Your task to perform on an android device: find snoozed emails in the gmail app Image 0: 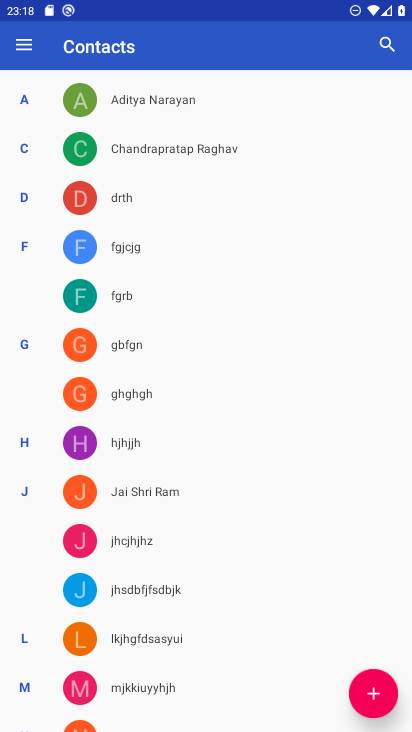
Step 0: press home button
Your task to perform on an android device: find snoozed emails in the gmail app Image 1: 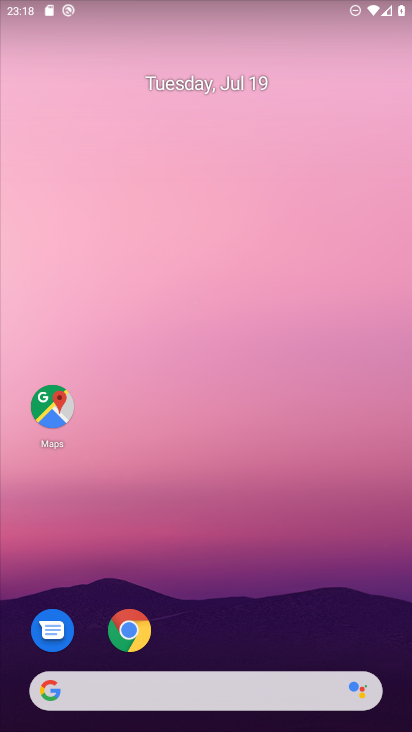
Step 1: drag from (208, 620) to (218, 306)
Your task to perform on an android device: find snoozed emails in the gmail app Image 2: 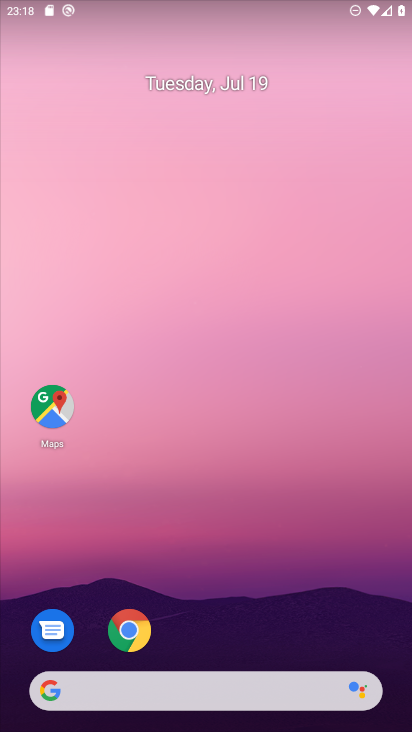
Step 2: drag from (228, 610) to (237, 74)
Your task to perform on an android device: find snoozed emails in the gmail app Image 3: 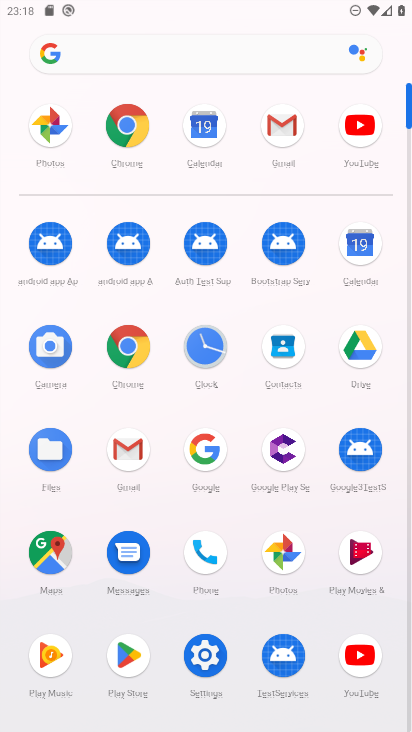
Step 3: click (296, 136)
Your task to perform on an android device: find snoozed emails in the gmail app Image 4: 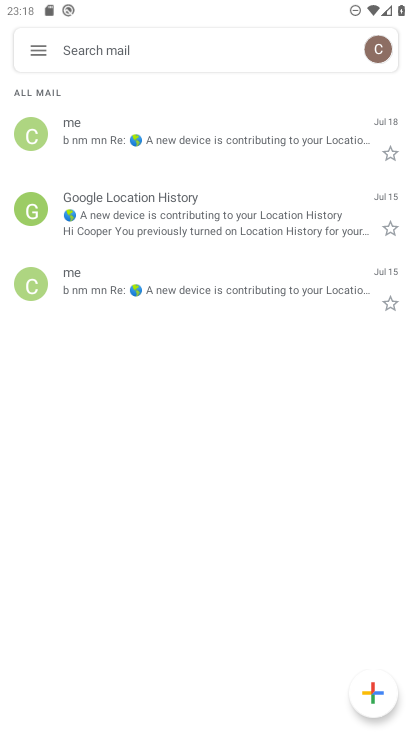
Step 4: click (27, 66)
Your task to perform on an android device: find snoozed emails in the gmail app Image 5: 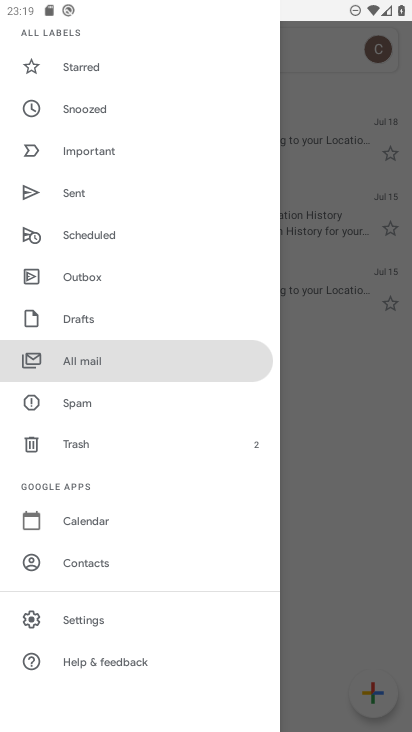
Step 5: click (84, 114)
Your task to perform on an android device: find snoozed emails in the gmail app Image 6: 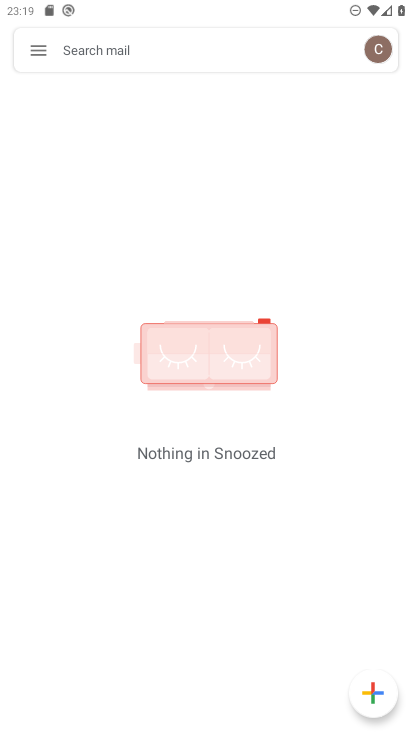
Step 6: task complete